Your task to perform on an android device: Open Google Maps Image 0: 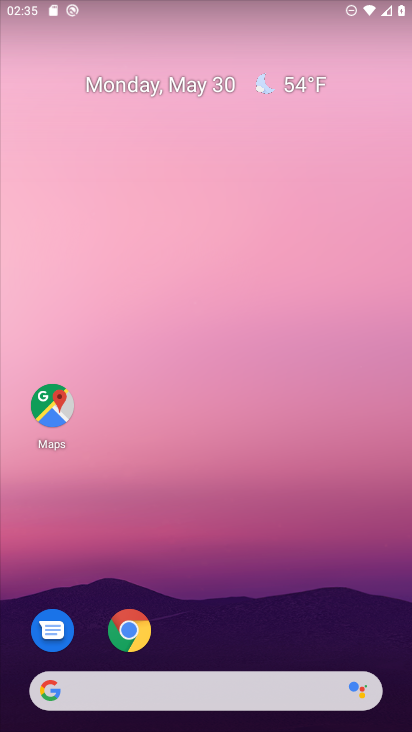
Step 0: press home button
Your task to perform on an android device: Open Google Maps Image 1: 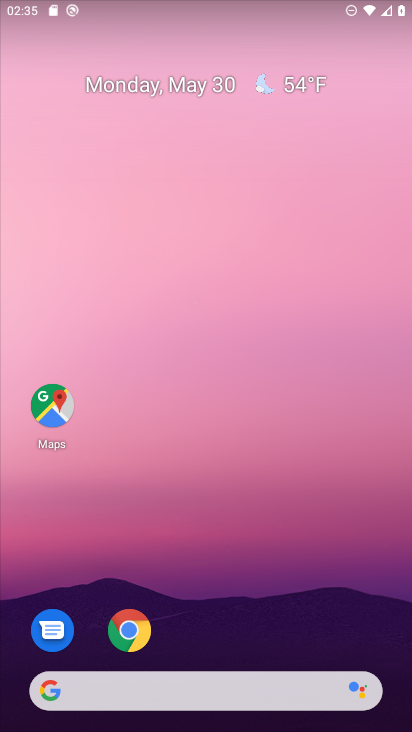
Step 1: click (51, 401)
Your task to perform on an android device: Open Google Maps Image 2: 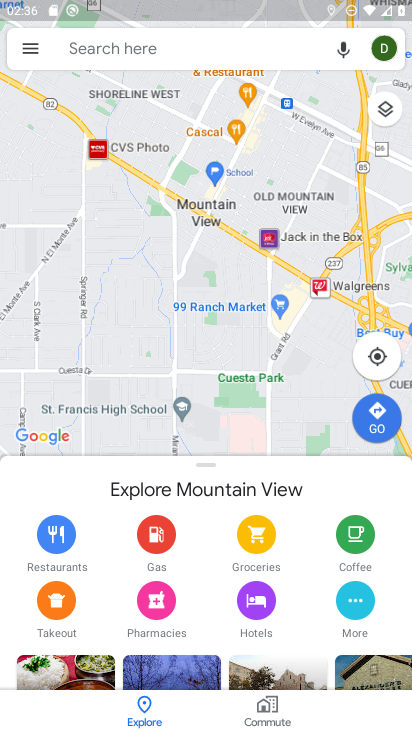
Step 2: task complete